Your task to perform on an android device: snooze an email in the gmail app Image 0: 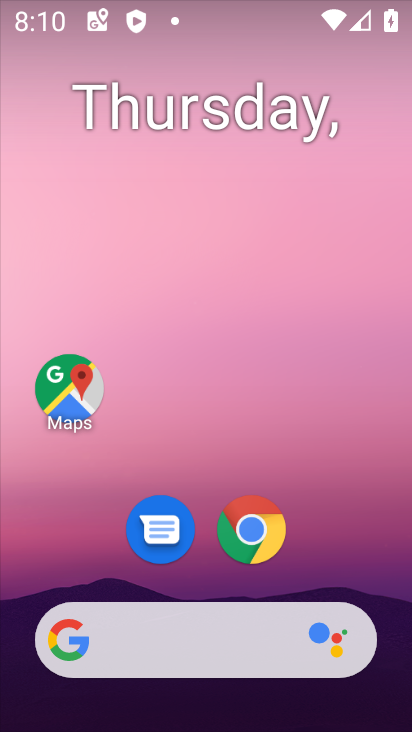
Step 0: drag from (231, 688) to (224, 141)
Your task to perform on an android device: snooze an email in the gmail app Image 1: 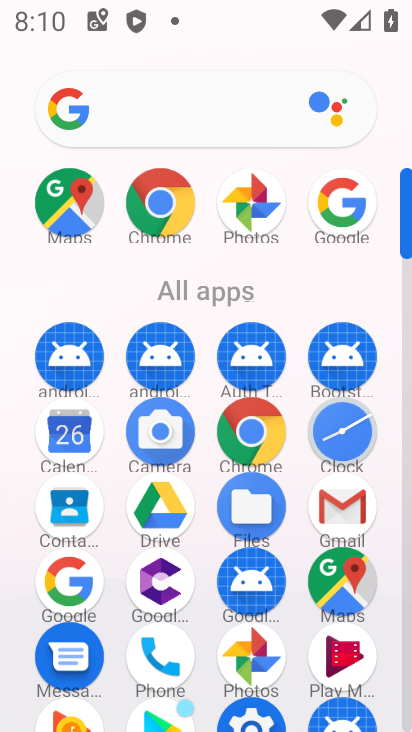
Step 1: click (354, 503)
Your task to perform on an android device: snooze an email in the gmail app Image 2: 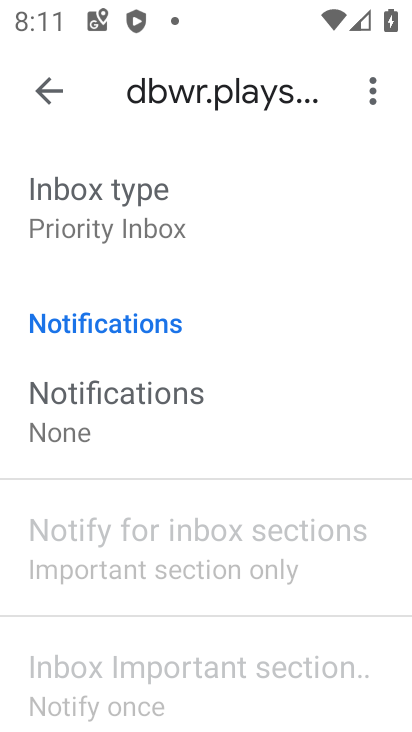
Step 2: click (47, 83)
Your task to perform on an android device: snooze an email in the gmail app Image 3: 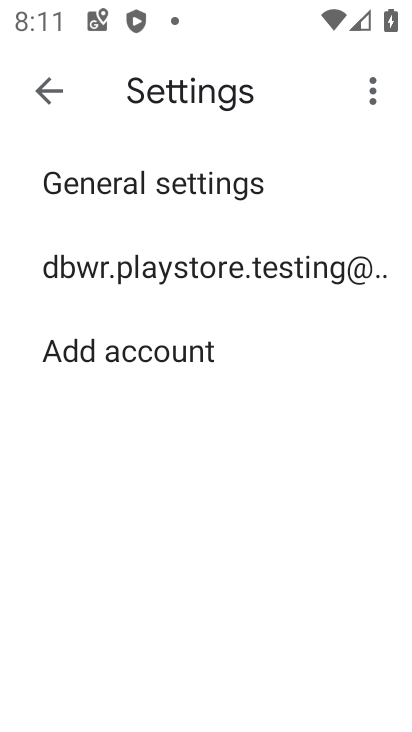
Step 3: click (48, 83)
Your task to perform on an android device: snooze an email in the gmail app Image 4: 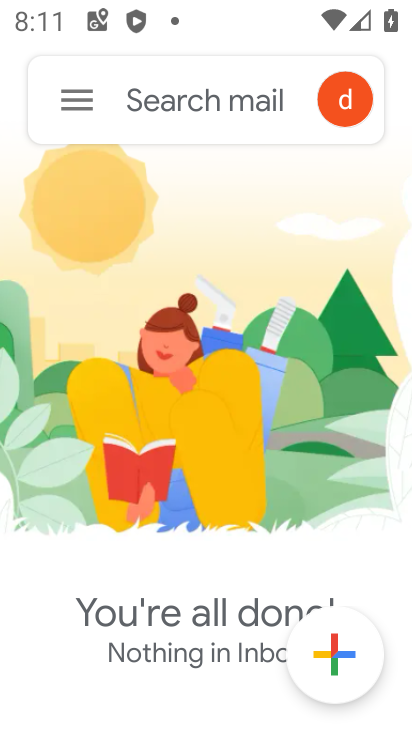
Step 4: task complete